Your task to perform on an android device: toggle translation in the chrome app Image 0: 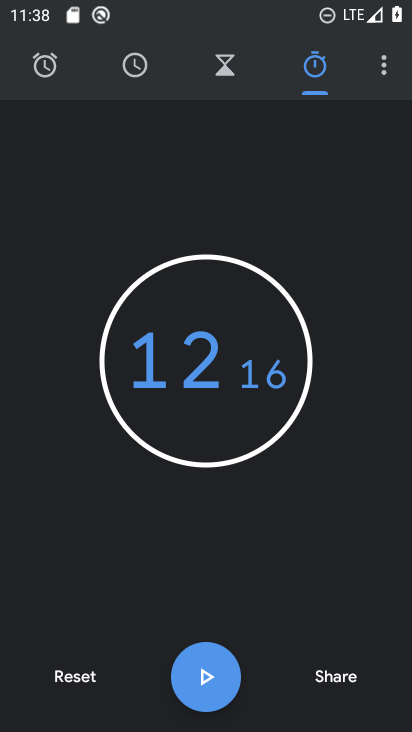
Step 0: press home button
Your task to perform on an android device: toggle translation in the chrome app Image 1: 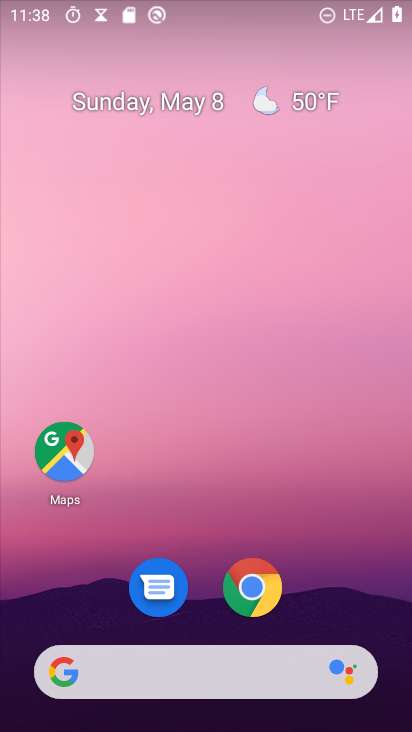
Step 1: click (263, 576)
Your task to perform on an android device: toggle translation in the chrome app Image 2: 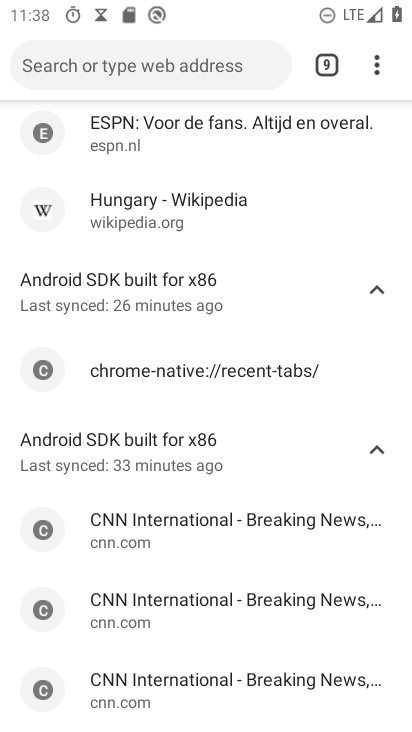
Step 2: drag from (374, 66) to (160, 549)
Your task to perform on an android device: toggle translation in the chrome app Image 3: 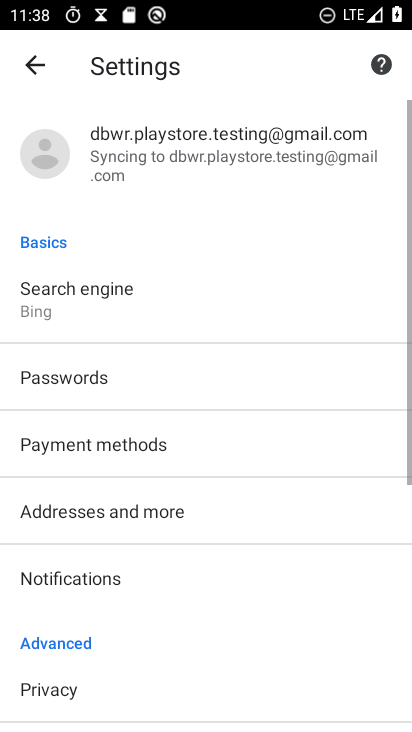
Step 3: drag from (156, 549) to (168, 177)
Your task to perform on an android device: toggle translation in the chrome app Image 4: 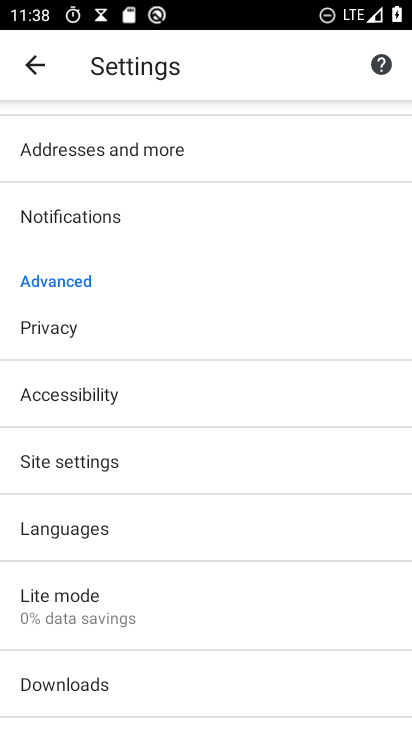
Step 4: click (68, 533)
Your task to perform on an android device: toggle translation in the chrome app Image 5: 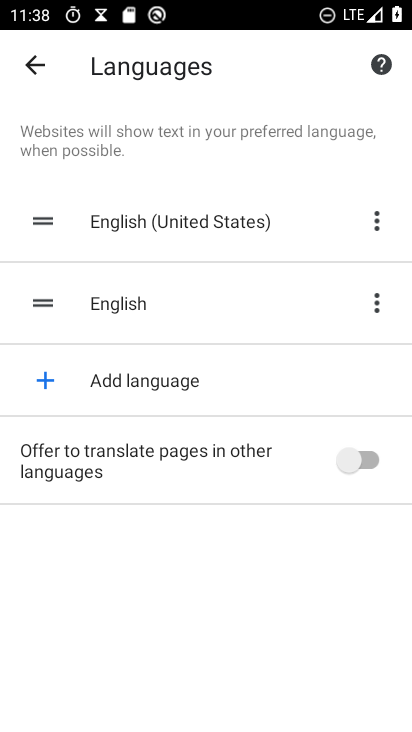
Step 5: click (347, 460)
Your task to perform on an android device: toggle translation in the chrome app Image 6: 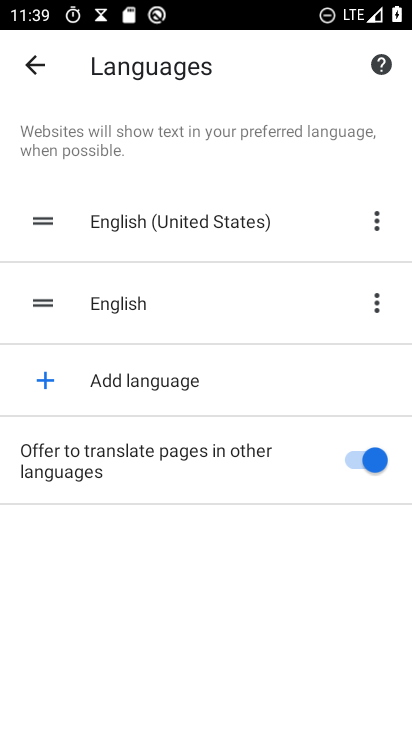
Step 6: task complete